Your task to perform on an android device: turn on airplane mode Image 0: 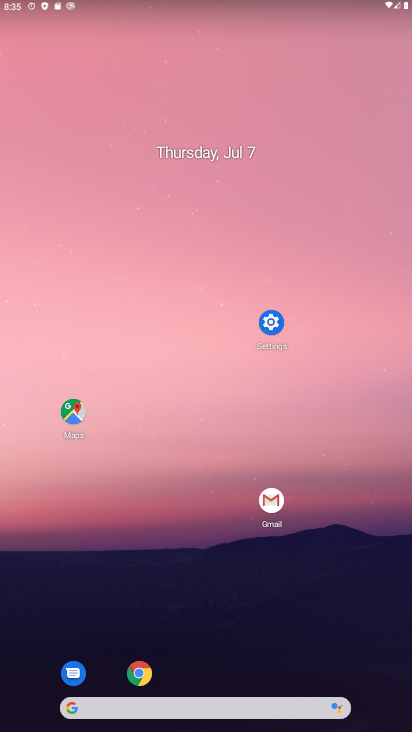
Step 0: drag from (380, 694) to (405, 167)
Your task to perform on an android device: turn on airplane mode Image 1: 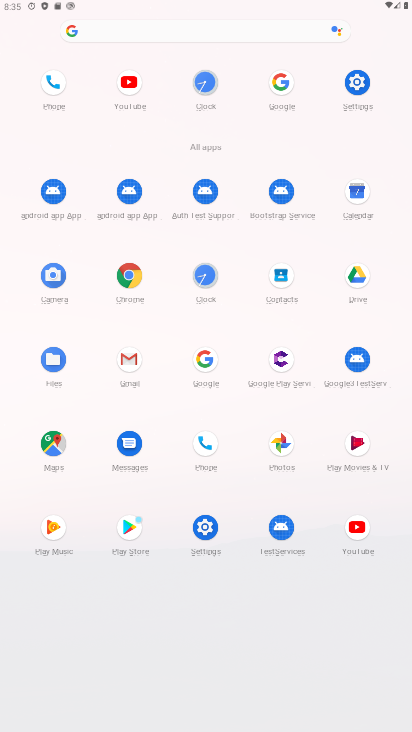
Step 1: click (351, 74)
Your task to perform on an android device: turn on airplane mode Image 2: 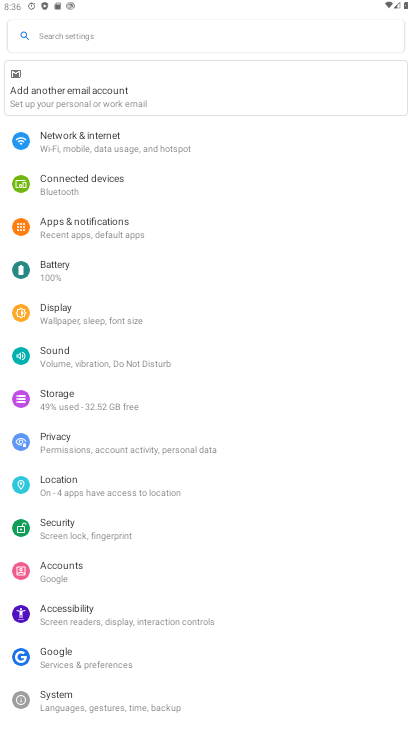
Step 2: click (68, 144)
Your task to perform on an android device: turn on airplane mode Image 3: 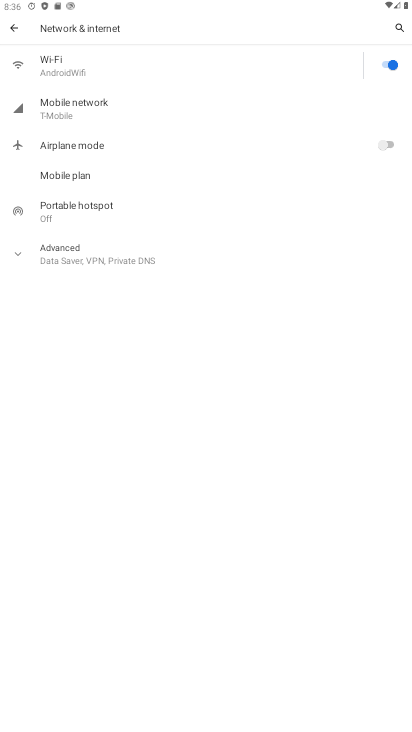
Step 3: click (391, 142)
Your task to perform on an android device: turn on airplane mode Image 4: 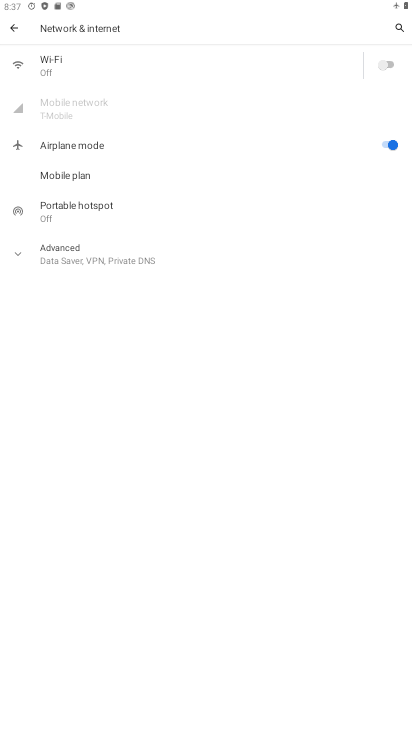
Step 4: task complete